Your task to perform on an android device: delete browsing data in the chrome app Image 0: 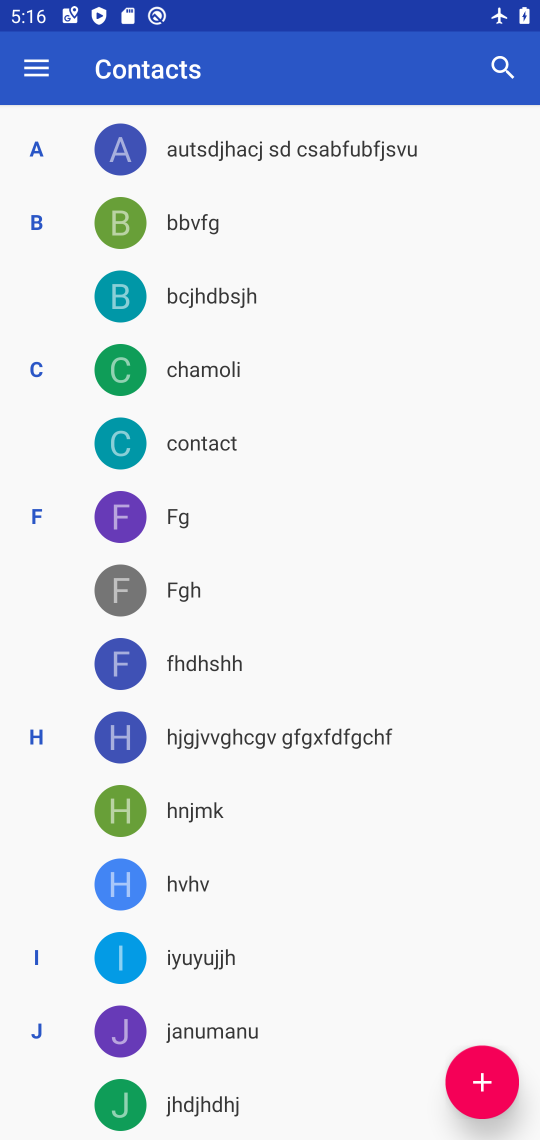
Step 0: press home button
Your task to perform on an android device: delete browsing data in the chrome app Image 1: 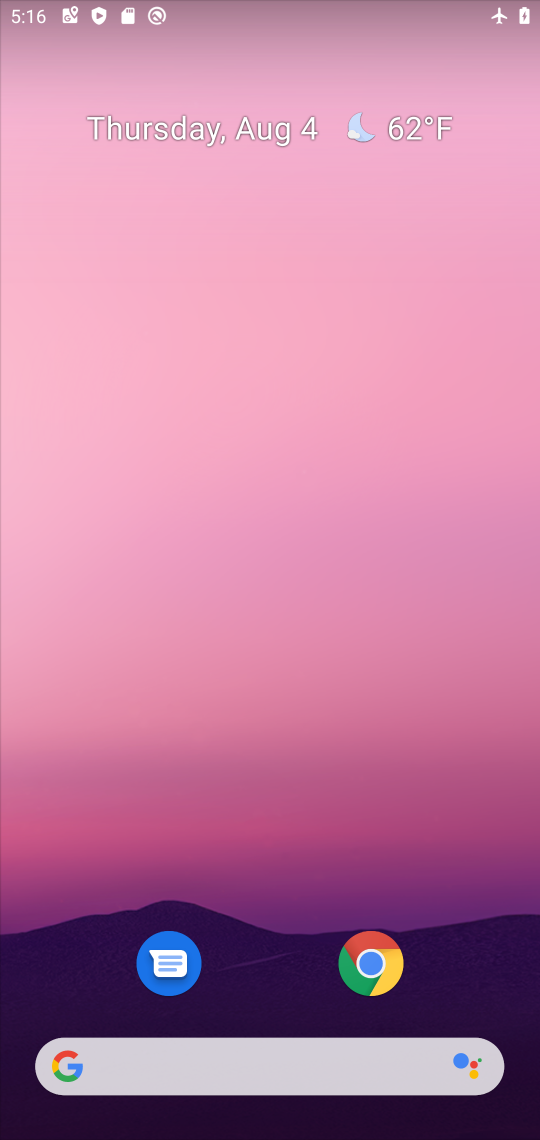
Step 1: click (373, 958)
Your task to perform on an android device: delete browsing data in the chrome app Image 2: 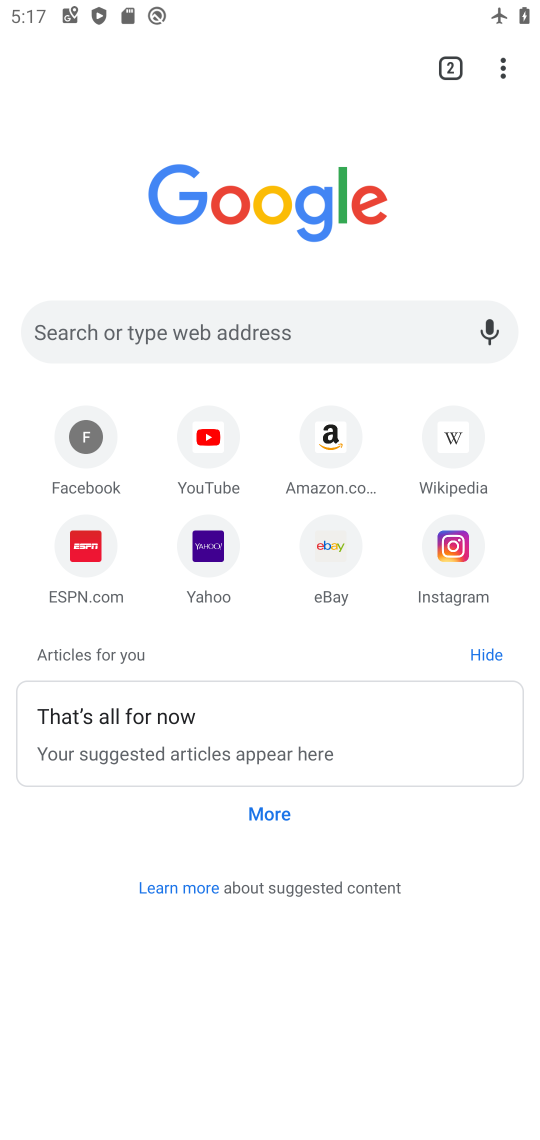
Step 2: click (505, 64)
Your task to perform on an android device: delete browsing data in the chrome app Image 3: 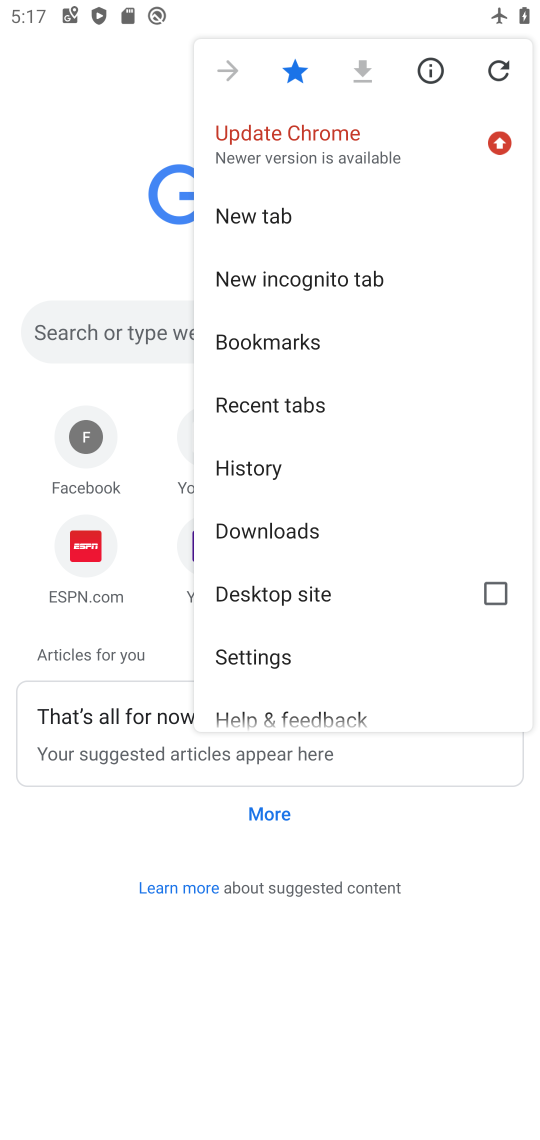
Step 3: click (265, 466)
Your task to perform on an android device: delete browsing data in the chrome app Image 4: 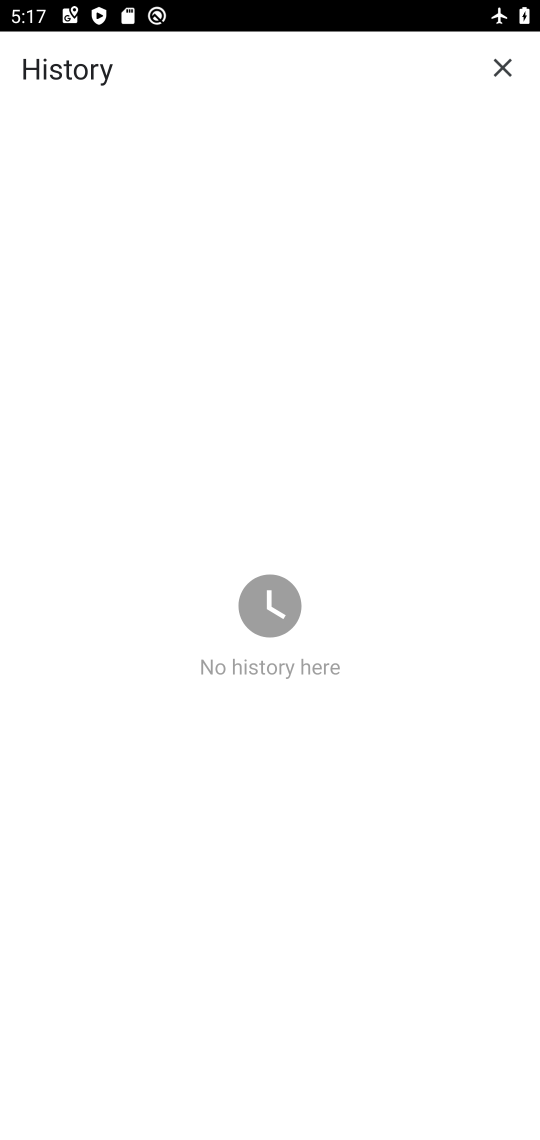
Step 4: task complete